Your task to perform on an android device: turn pop-ups on in chrome Image 0: 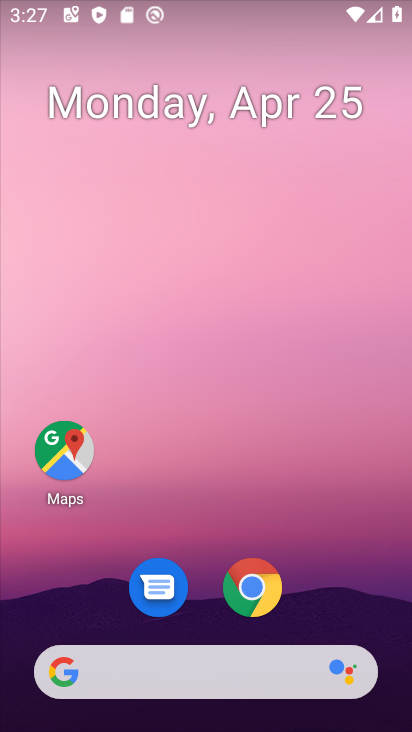
Step 0: click (253, 589)
Your task to perform on an android device: turn pop-ups on in chrome Image 1: 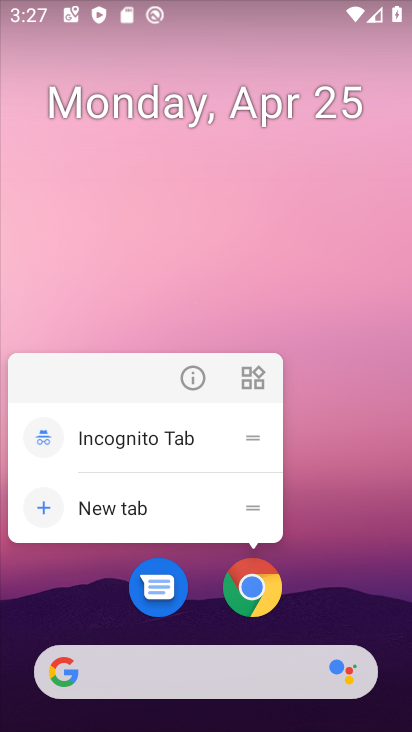
Step 1: click (253, 590)
Your task to perform on an android device: turn pop-ups on in chrome Image 2: 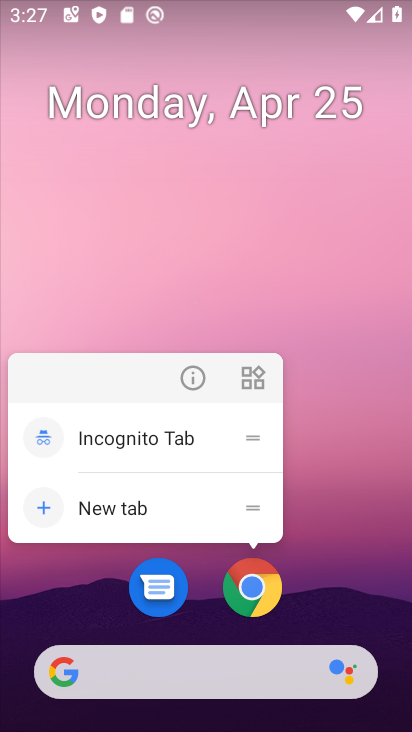
Step 2: click (253, 590)
Your task to perform on an android device: turn pop-ups on in chrome Image 3: 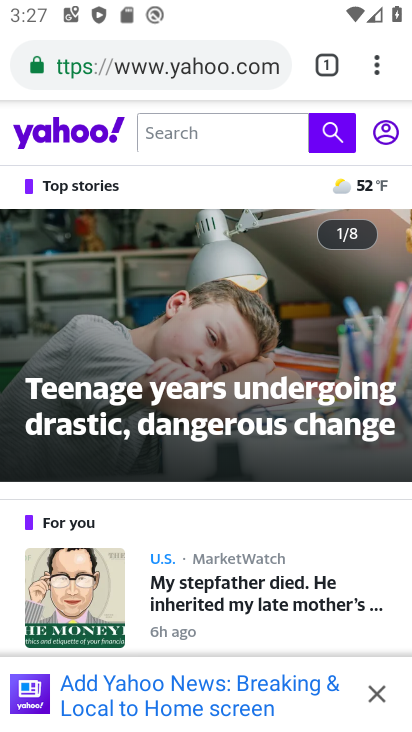
Step 3: click (372, 64)
Your task to perform on an android device: turn pop-ups on in chrome Image 4: 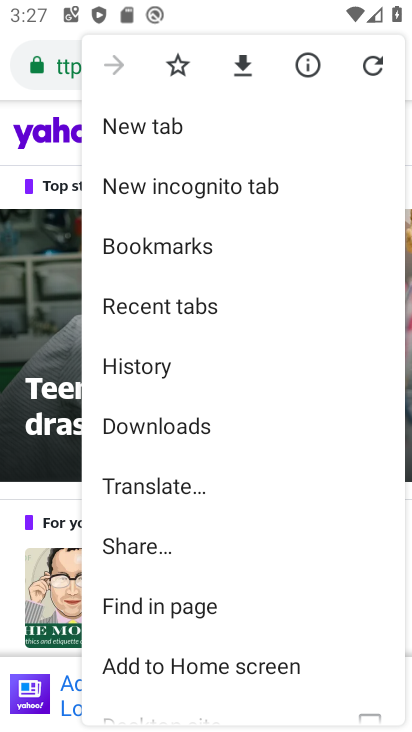
Step 4: drag from (237, 550) to (260, 152)
Your task to perform on an android device: turn pop-ups on in chrome Image 5: 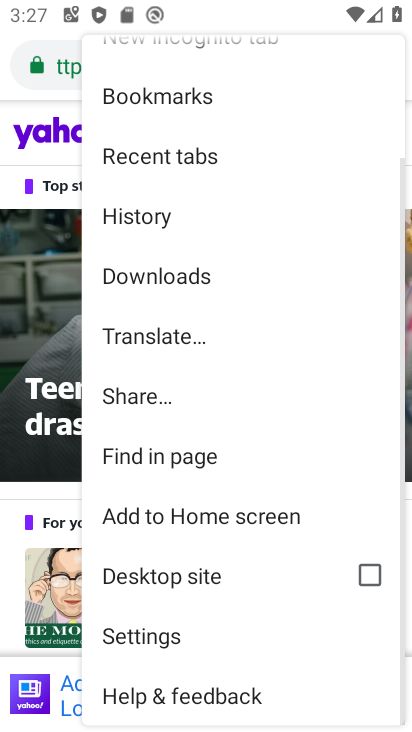
Step 5: click (171, 638)
Your task to perform on an android device: turn pop-ups on in chrome Image 6: 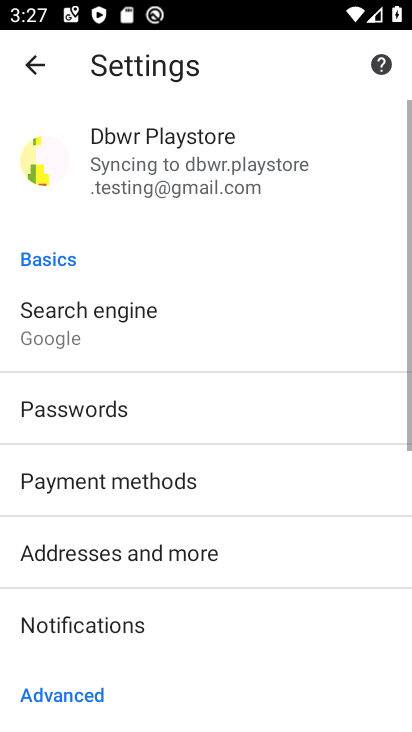
Step 6: drag from (179, 574) to (198, 144)
Your task to perform on an android device: turn pop-ups on in chrome Image 7: 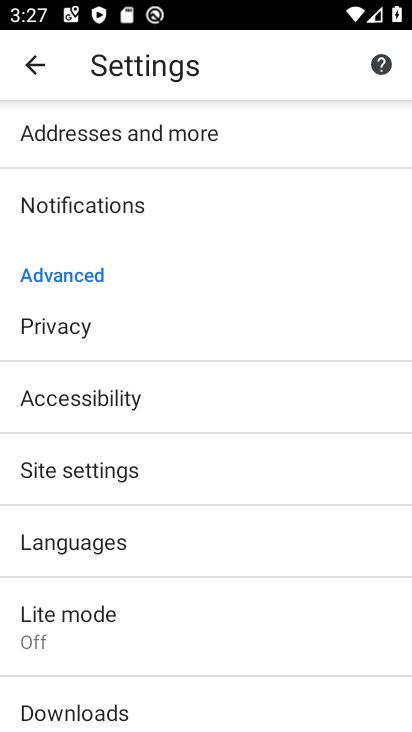
Step 7: click (119, 469)
Your task to perform on an android device: turn pop-ups on in chrome Image 8: 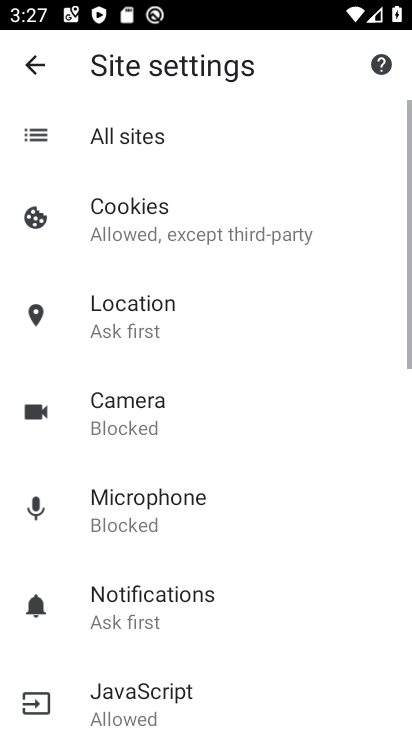
Step 8: drag from (244, 601) to (228, 217)
Your task to perform on an android device: turn pop-ups on in chrome Image 9: 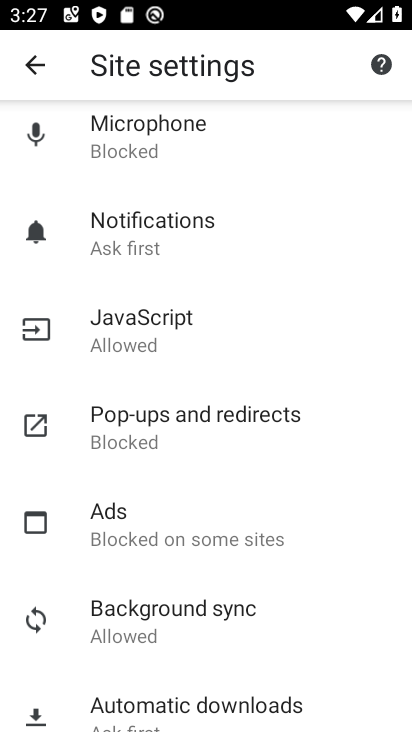
Step 9: click (109, 430)
Your task to perform on an android device: turn pop-ups on in chrome Image 10: 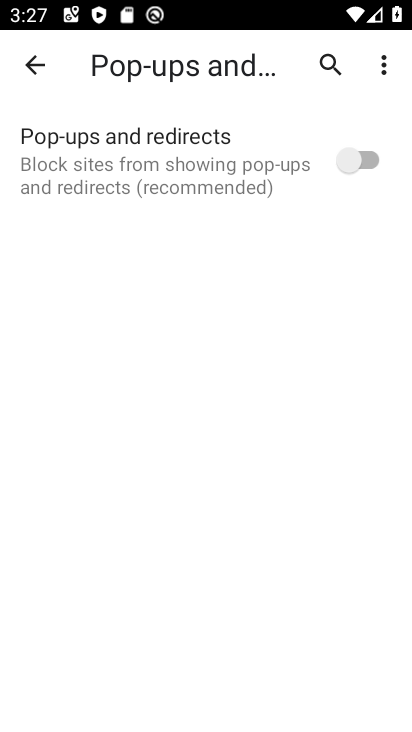
Step 10: click (348, 174)
Your task to perform on an android device: turn pop-ups on in chrome Image 11: 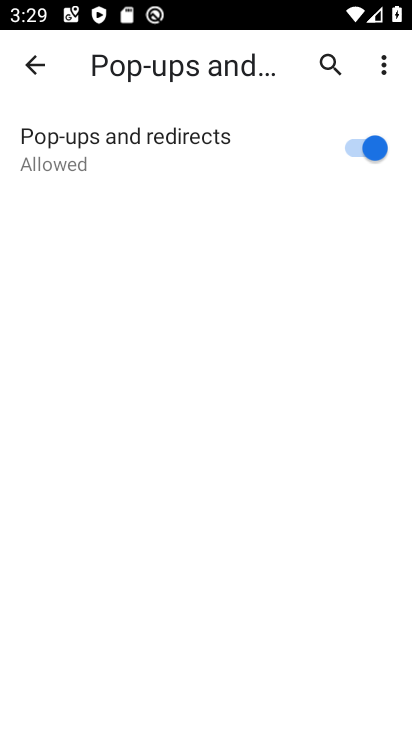
Step 11: task complete